Your task to perform on an android device: read, delete, or share a saved page in the chrome app Image 0: 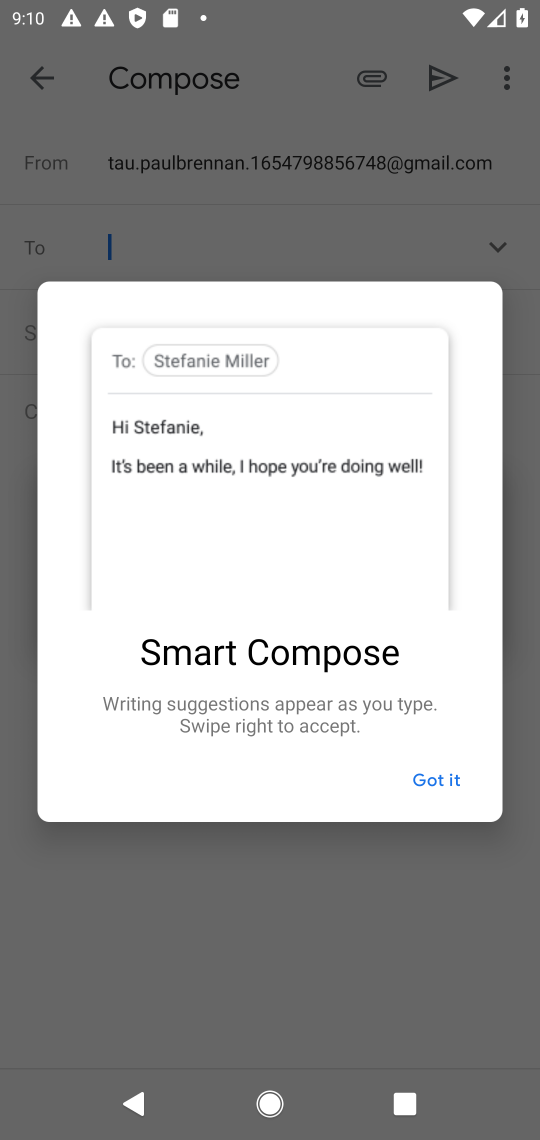
Step 0: press home button
Your task to perform on an android device: read, delete, or share a saved page in the chrome app Image 1: 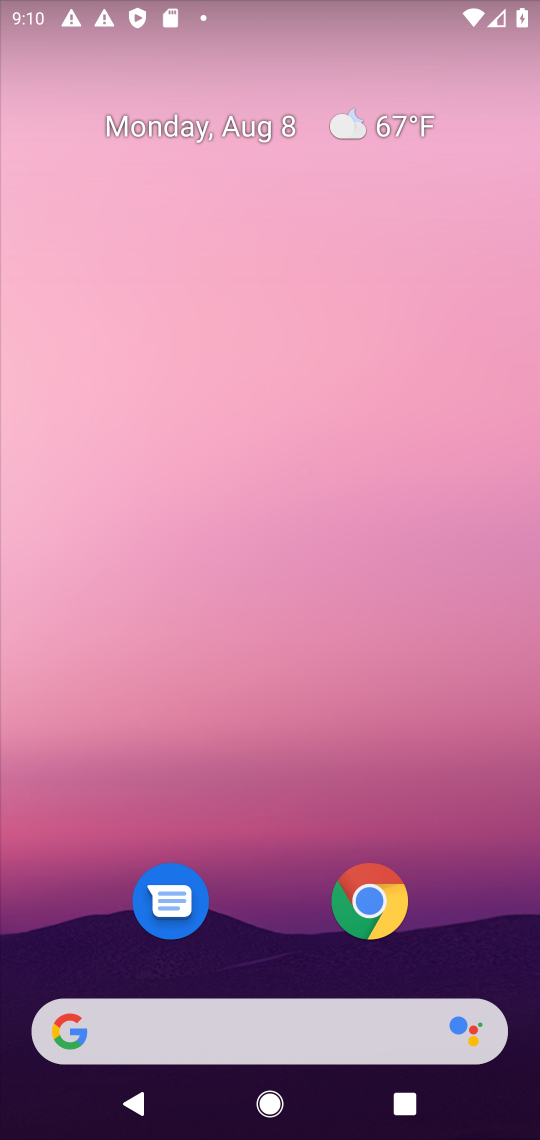
Step 1: click (361, 899)
Your task to perform on an android device: read, delete, or share a saved page in the chrome app Image 2: 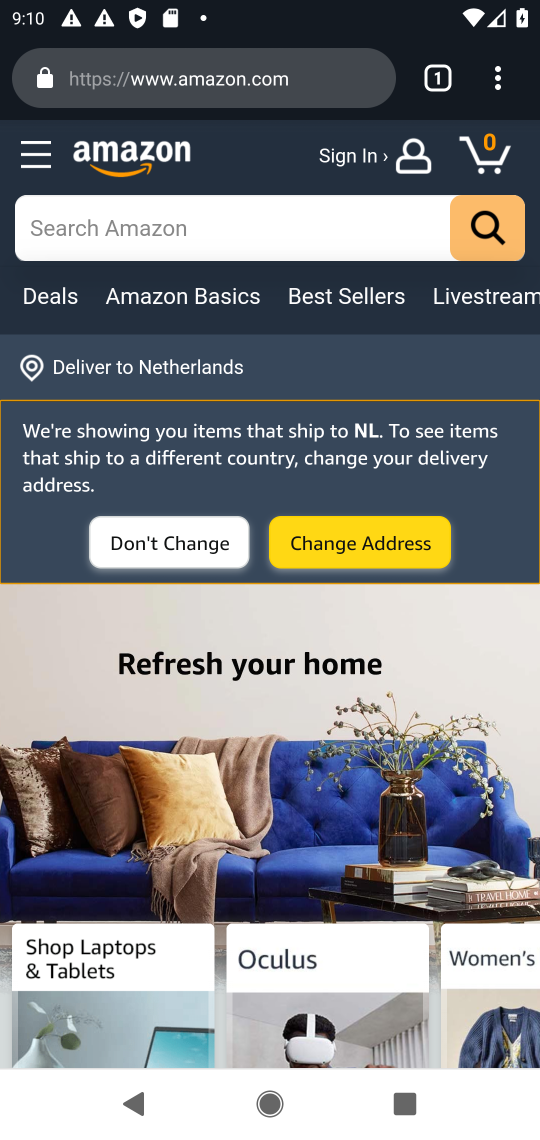
Step 2: click (495, 84)
Your task to perform on an android device: read, delete, or share a saved page in the chrome app Image 3: 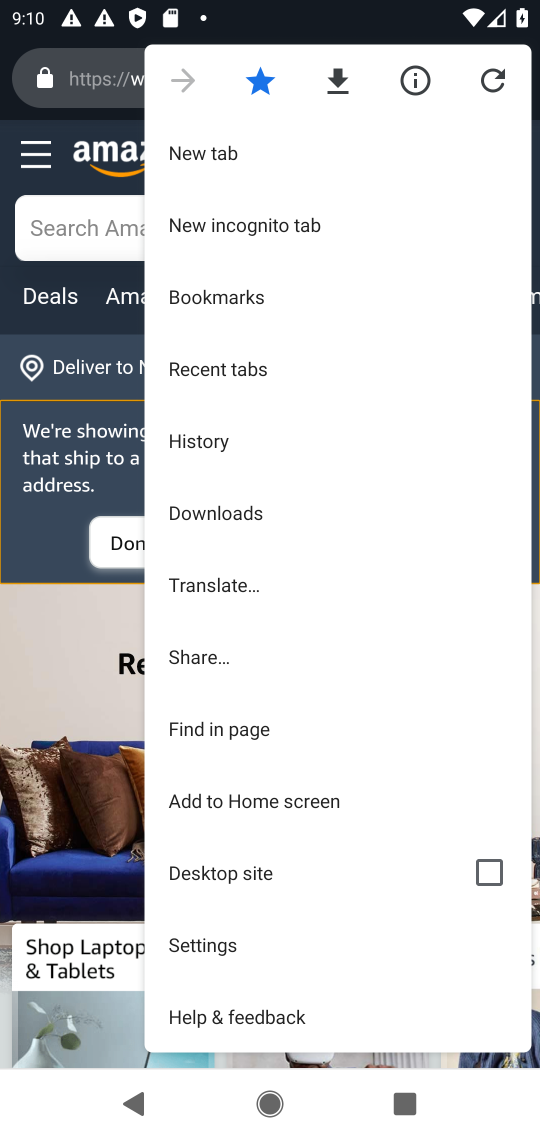
Step 3: task complete